Your task to perform on an android device: manage bookmarks in the chrome app Image 0: 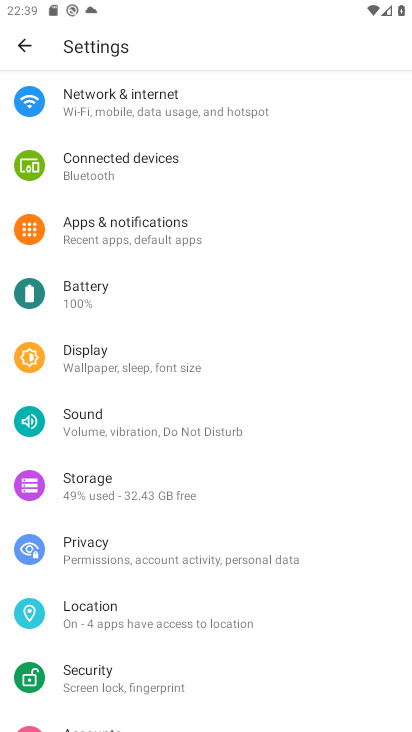
Step 0: press home button
Your task to perform on an android device: manage bookmarks in the chrome app Image 1: 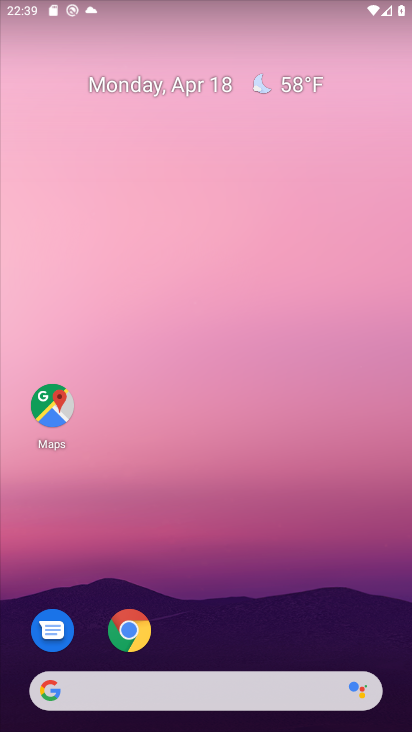
Step 1: click (134, 616)
Your task to perform on an android device: manage bookmarks in the chrome app Image 2: 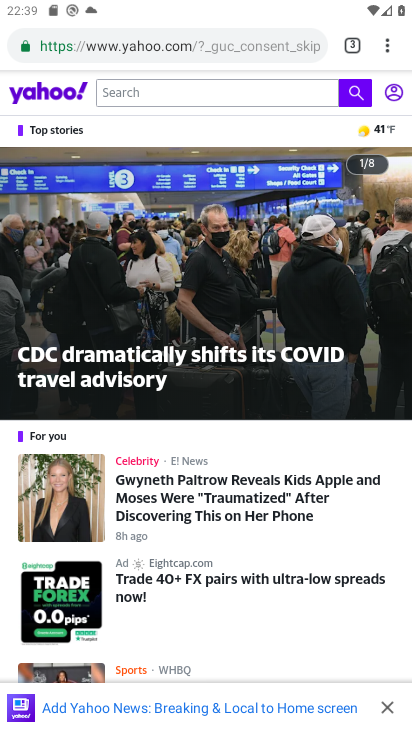
Step 2: click (391, 54)
Your task to perform on an android device: manage bookmarks in the chrome app Image 3: 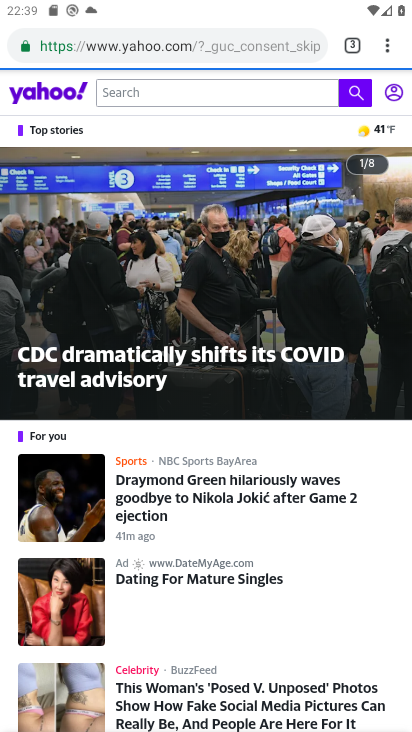
Step 3: click (383, 47)
Your task to perform on an android device: manage bookmarks in the chrome app Image 4: 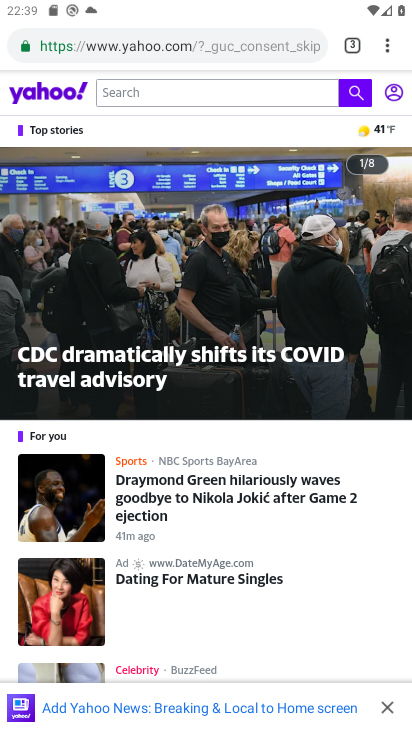
Step 4: click (389, 45)
Your task to perform on an android device: manage bookmarks in the chrome app Image 5: 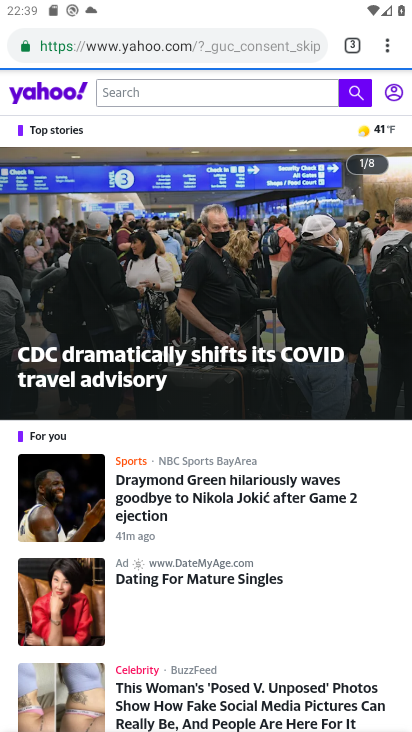
Step 5: click (384, 41)
Your task to perform on an android device: manage bookmarks in the chrome app Image 6: 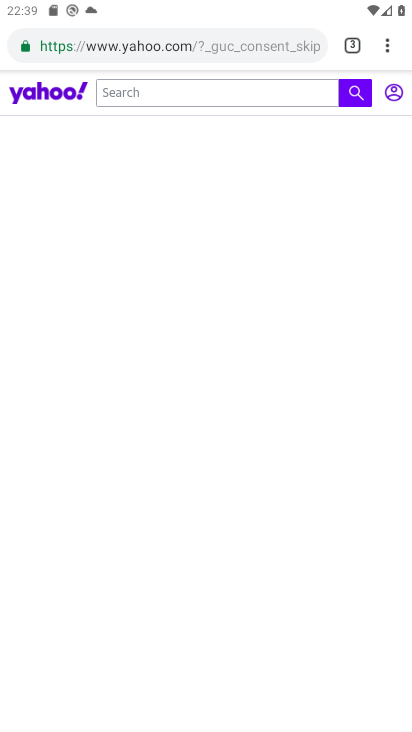
Step 6: task complete